Your task to perform on an android device: Search for a new phone on Amazon. Image 0: 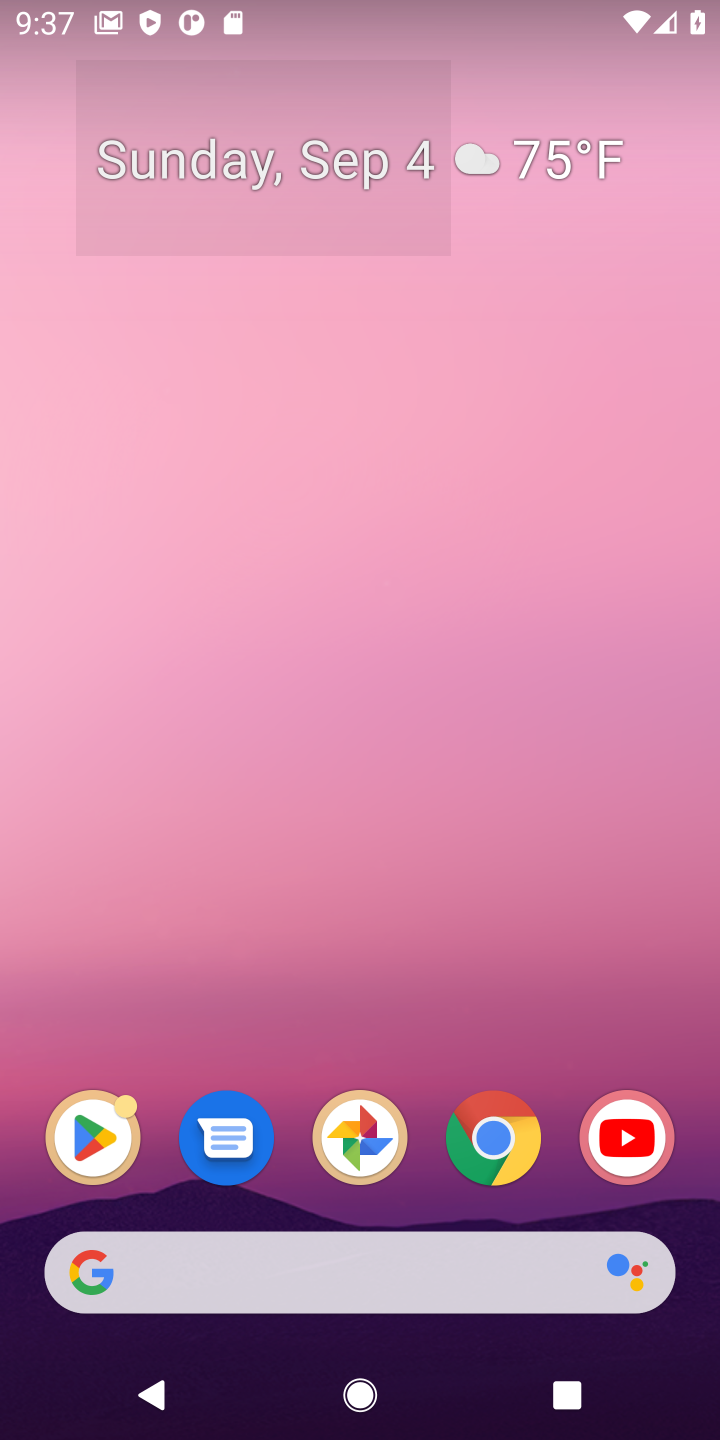
Step 0: click (523, 1171)
Your task to perform on an android device: Search for a new phone on Amazon. Image 1: 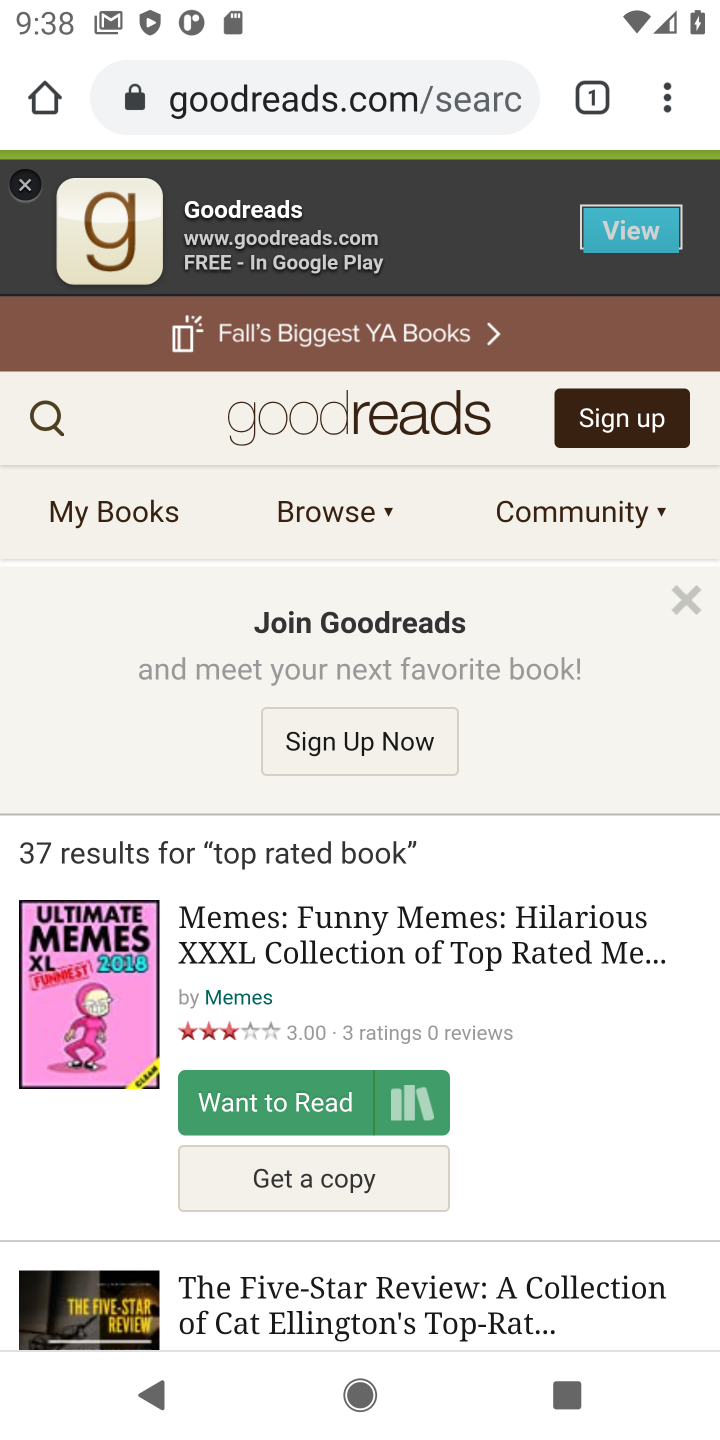
Step 1: click (390, 123)
Your task to perform on an android device: Search for a new phone on Amazon. Image 2: 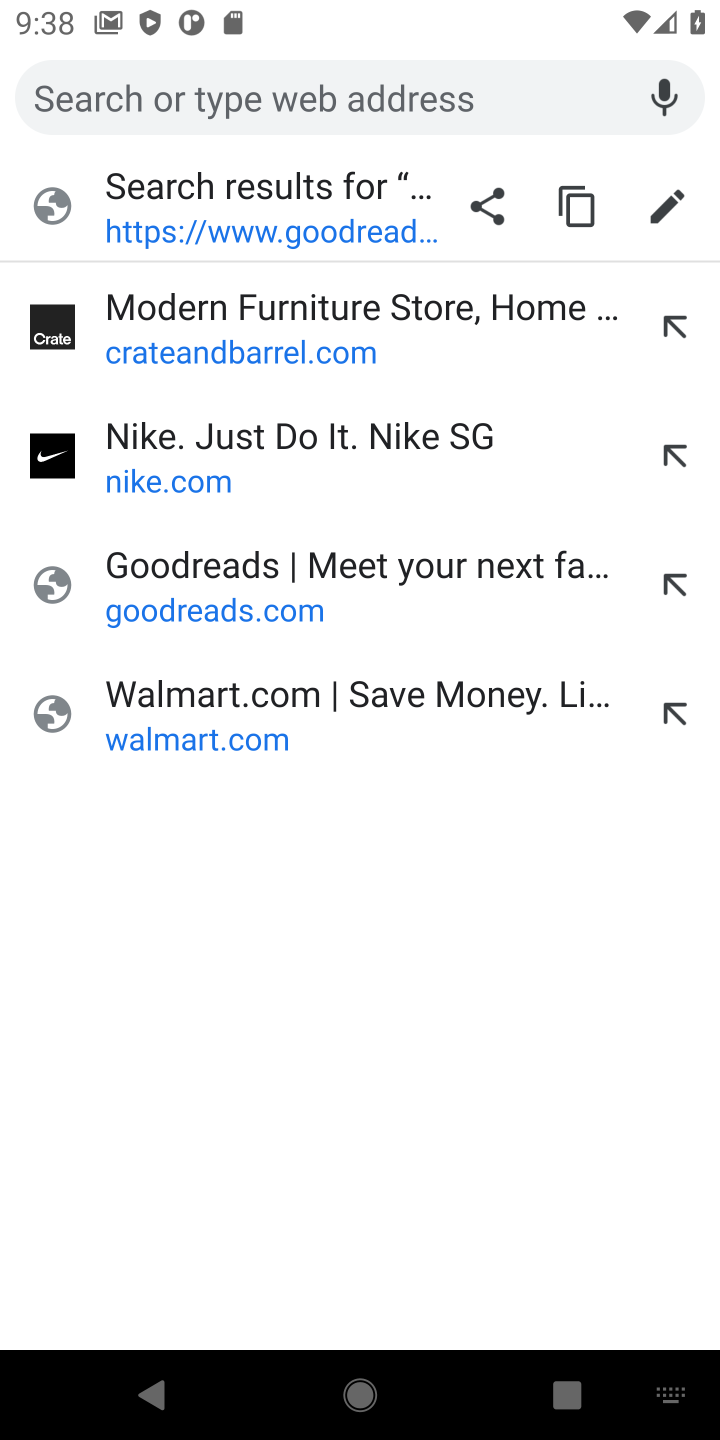
Step 2: type "amazon"
Your task to perform on an android device: Search for a new phone on Amazon. Image 3: 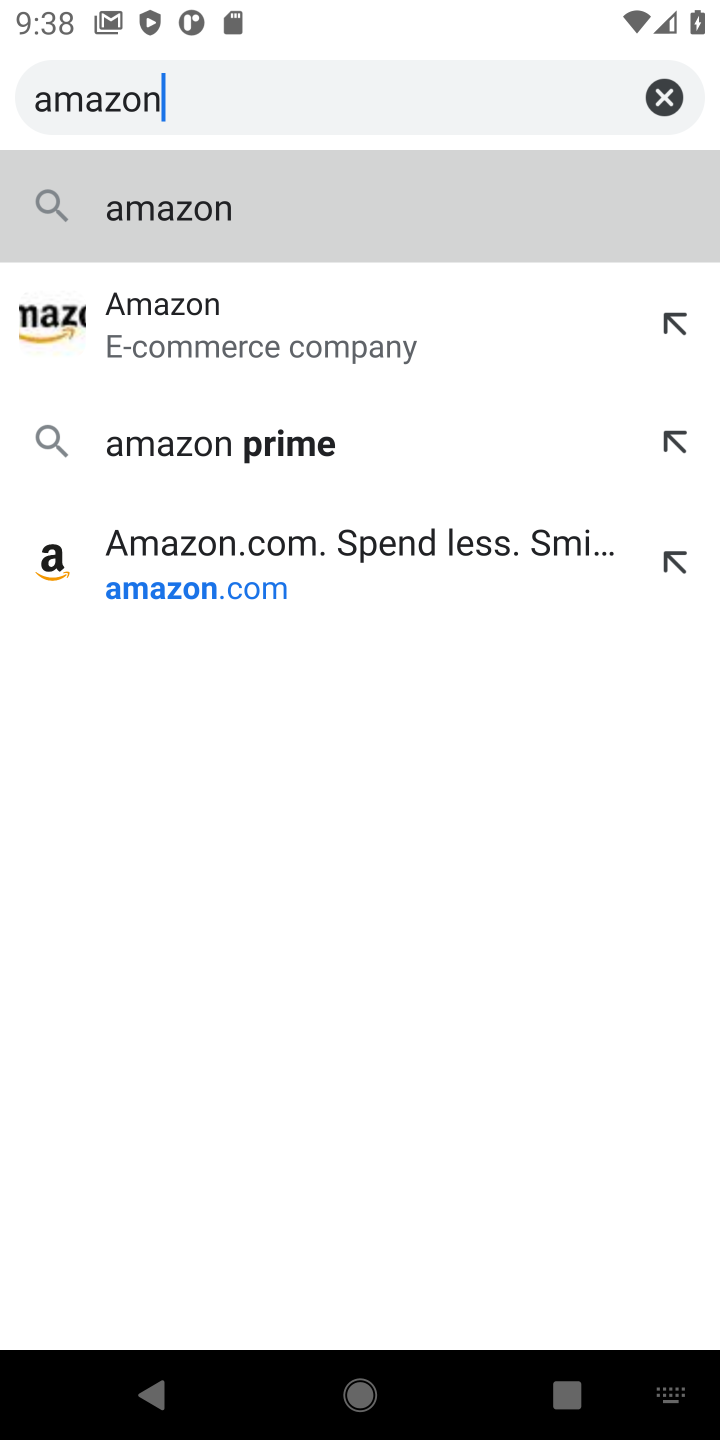
Step 3: click (298, 590)
Your task to perform on an android device: Search for a new phone on Amazon. Image 4: 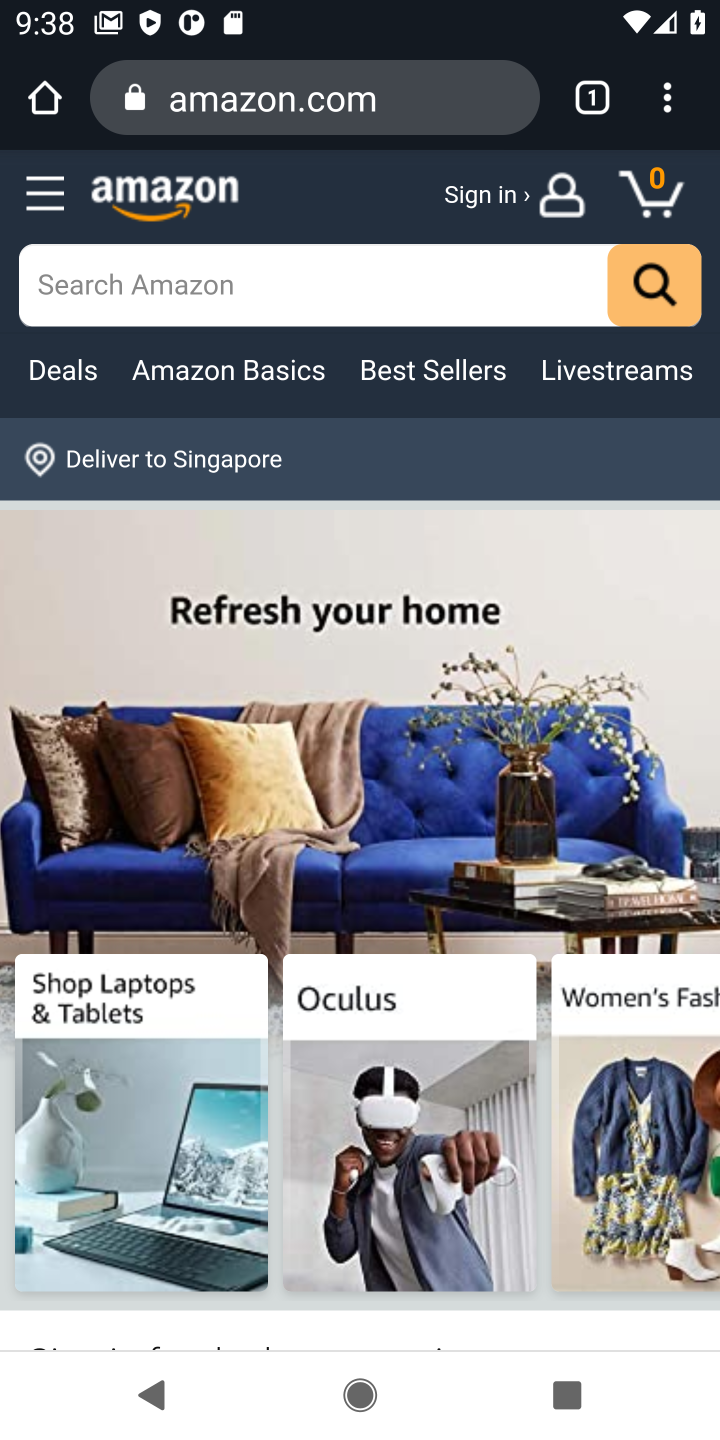
Step 4: click (246, 298)
Your task to perform on an android device: Search for a new phone on Amazon. Image 5: 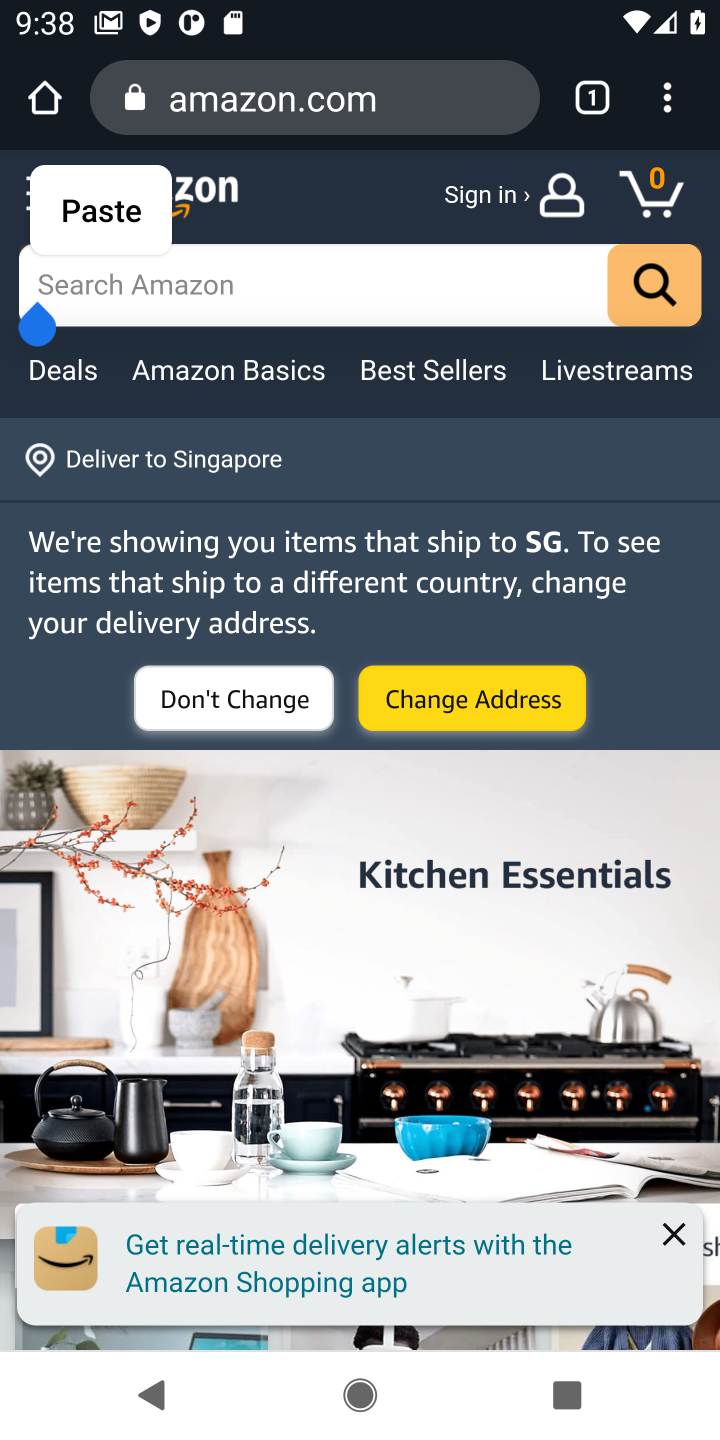
Step 5: type "new phones"
Your task to perform on an android device: Search for a new phone on Amazon. Image 6: 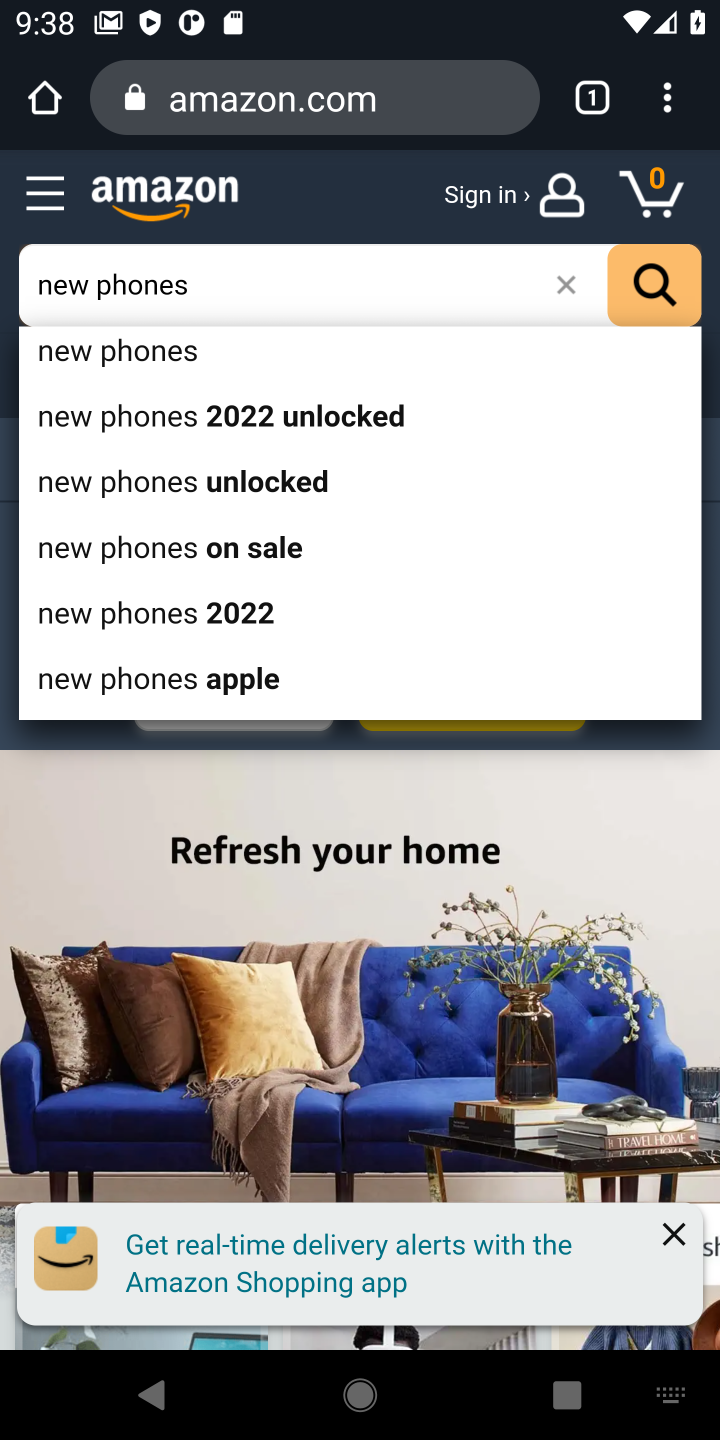
Step 6: click (667, 300)
Your task to perform on an android device: Search for a new phone on Amazon. Image 7: 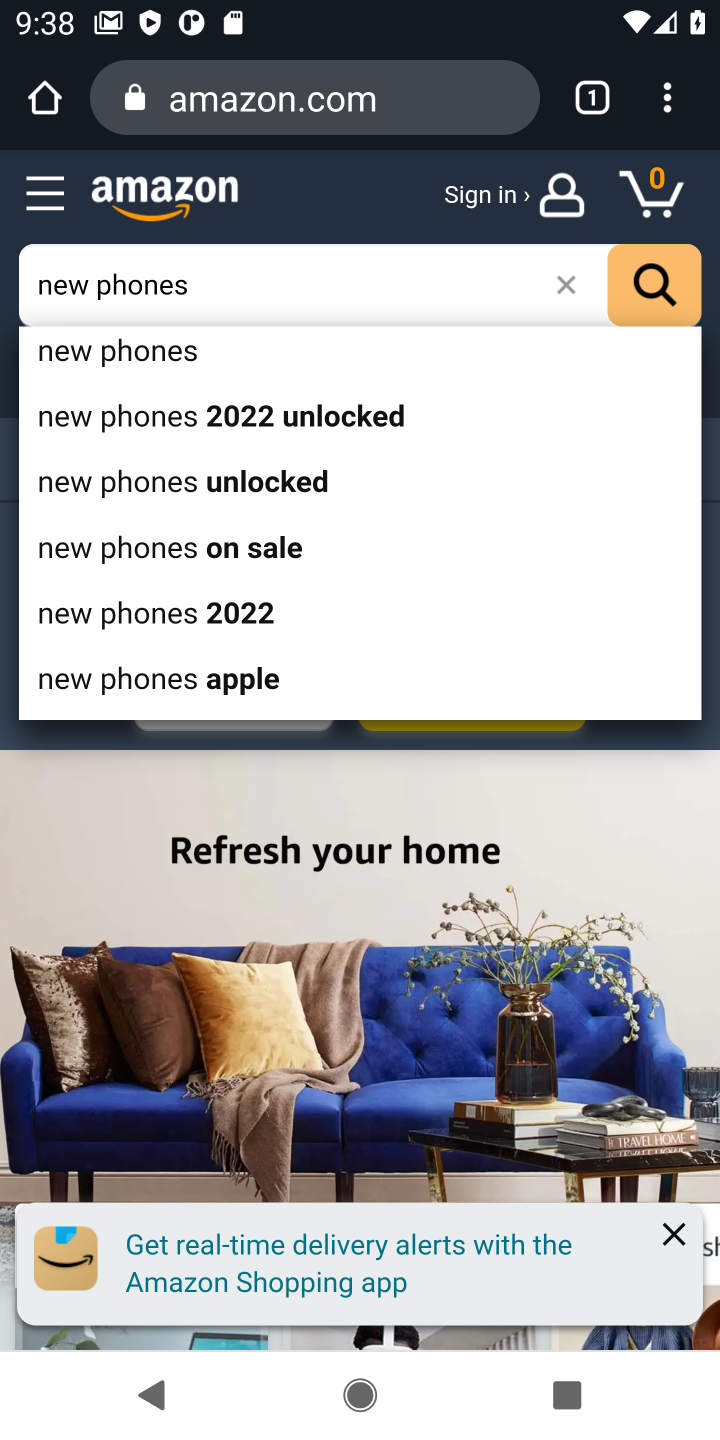
Step 7: click (180, 339)
Your task to perform on an android device: Search for a new phone on Amazon. Image 8: 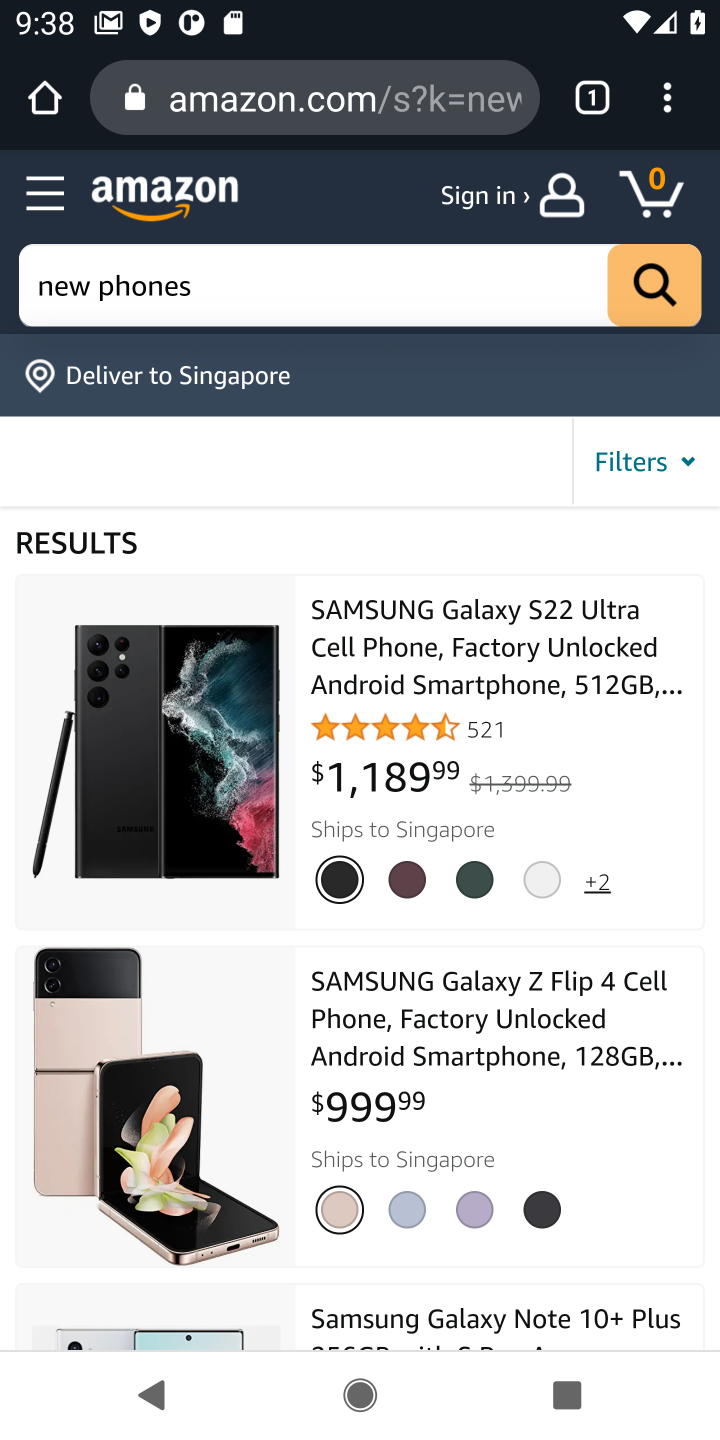
Step 8: task complete